Your task to perform on an android device: turn on javascript in the chrome app Image 0: 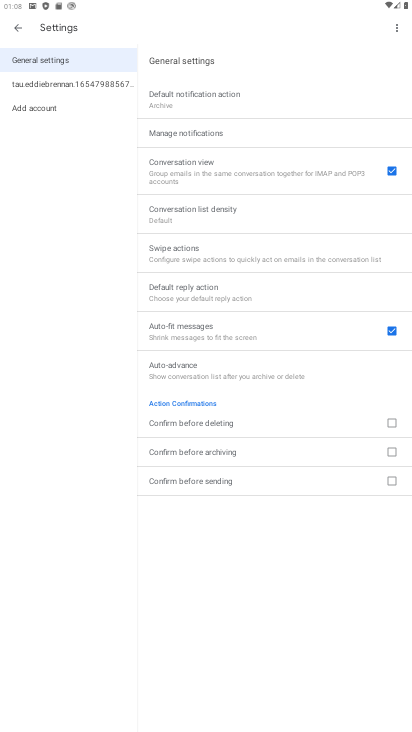
Step 0: press home button
Your task to perform on an android device: turn on javascript in the chrome app Image 1: 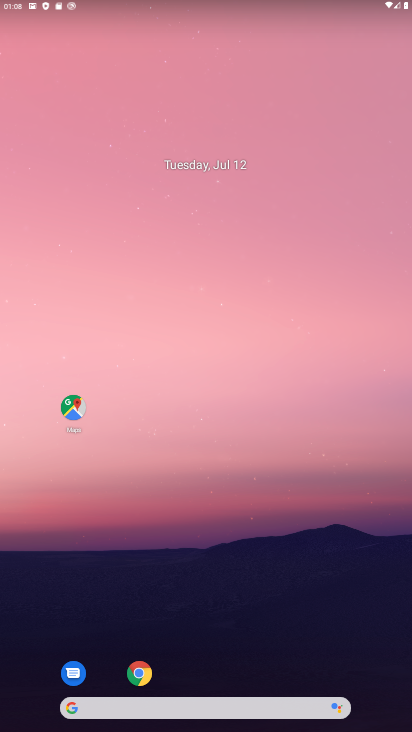
Step 1: click (135, 670)
Your task to perform on an android device: turn on javascript in the chrome app Image 2: 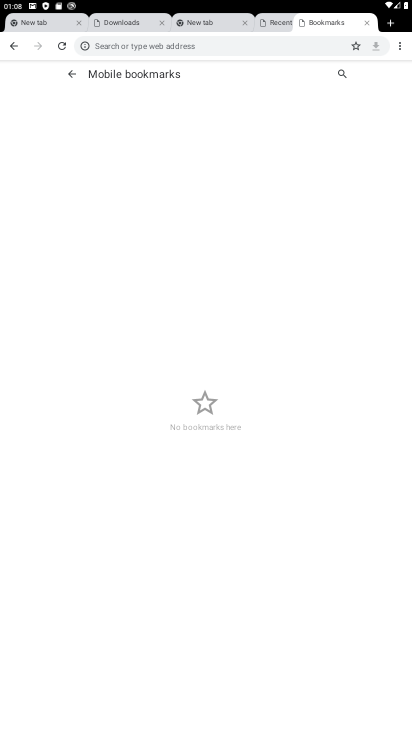
Step 2: drag from (396, 49) to (307, 211)
Your task to perform on an android device: turn on javascript in the chrome app Image 3: 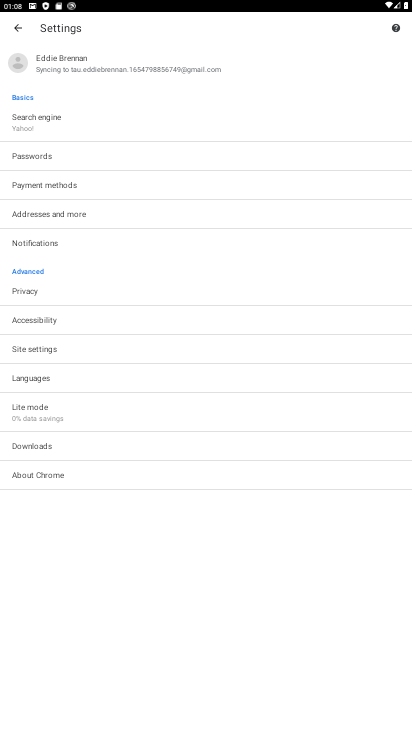
Step 3: click (44, 352)
Your task to perform on an android device: turn on javascript in the chrome app Image 4: 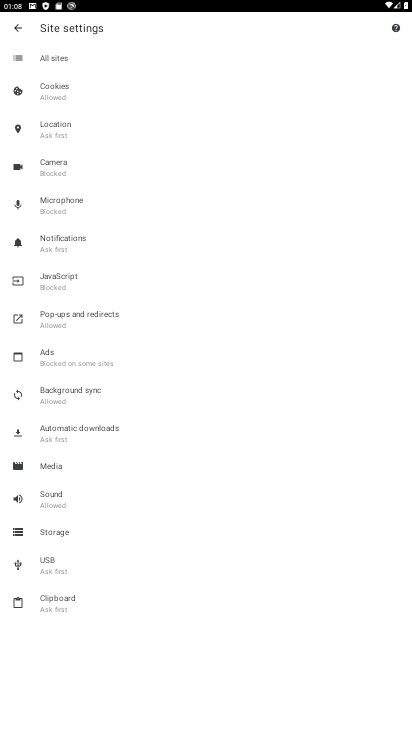
Step 4: click (60, 288)
Your task to perform on an android device: turn on javascript in the chrome app Image 5: 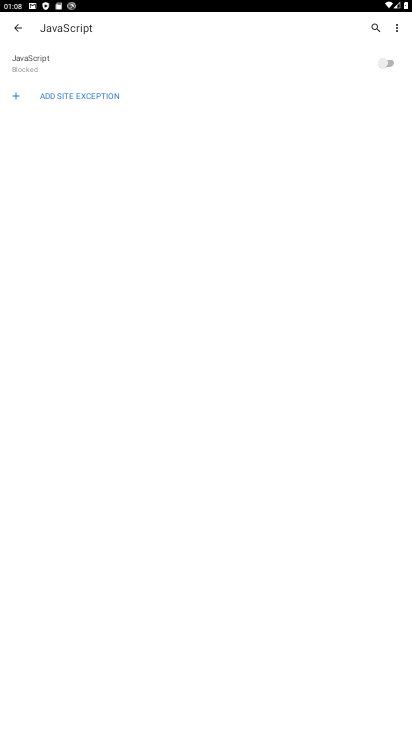
Step 5: click (383, 58)
Your task to perform on an android device: turn on javascript in the chrome app Image 6: 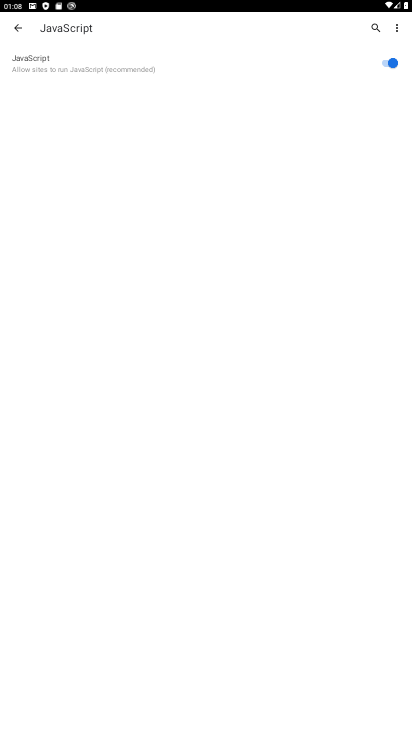
Step 6: task complete